Your task to perform on an android device: Is it going to rain tomorrow? Image 0: 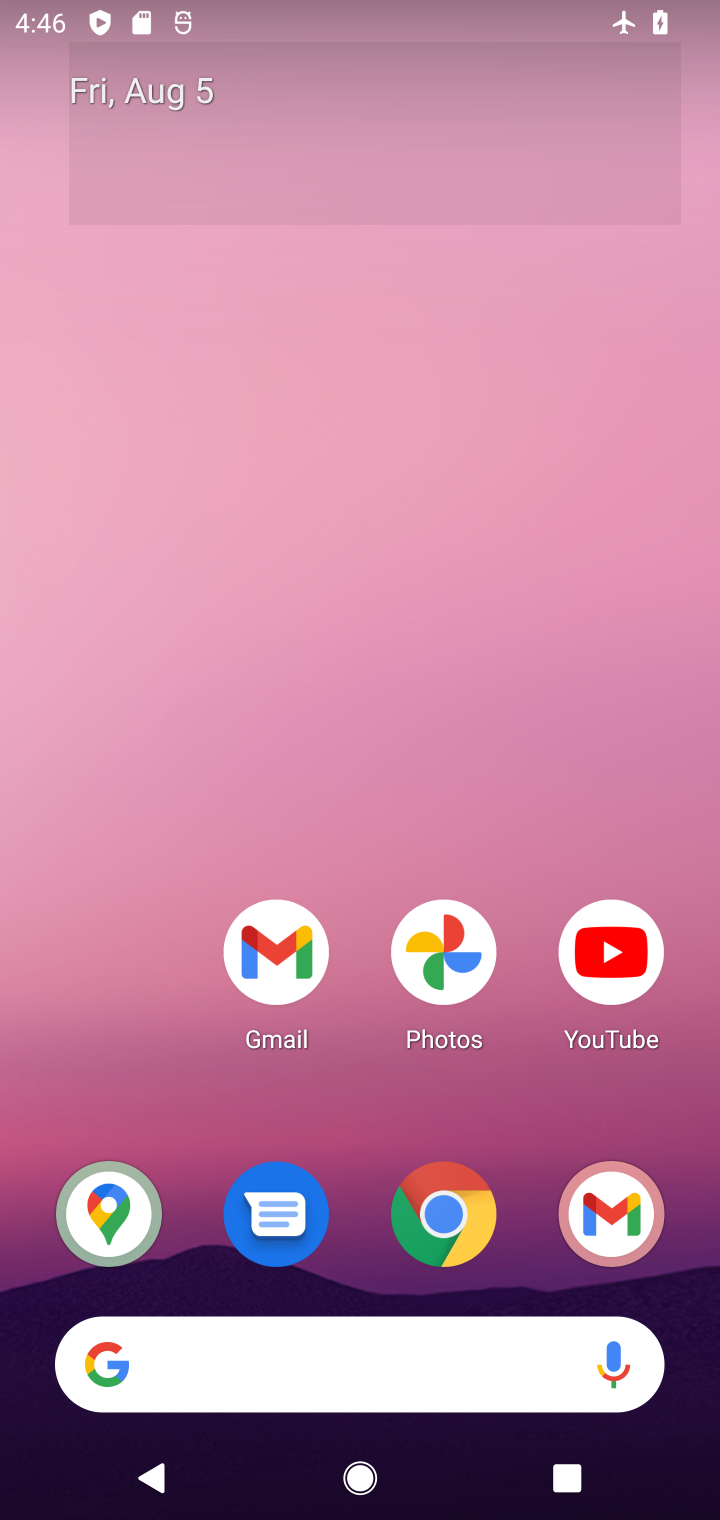
Step 0: click (209, 1345)
Your task to perform on an android device: Is it going to rain tomorrow? Image 1: 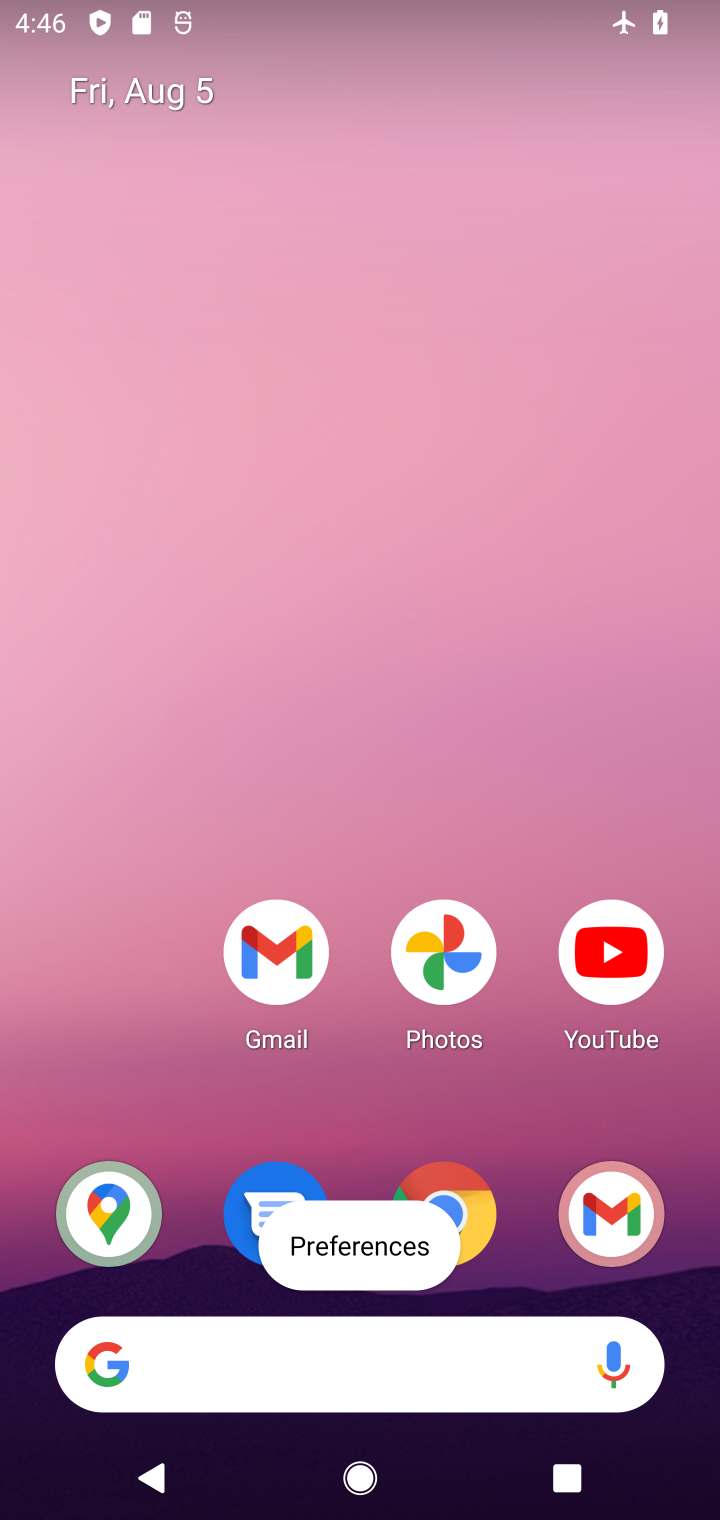
Step 1: click (219, 1361)
Your task to perform on an android device: Is it going to rain tomorrow? Image 2: 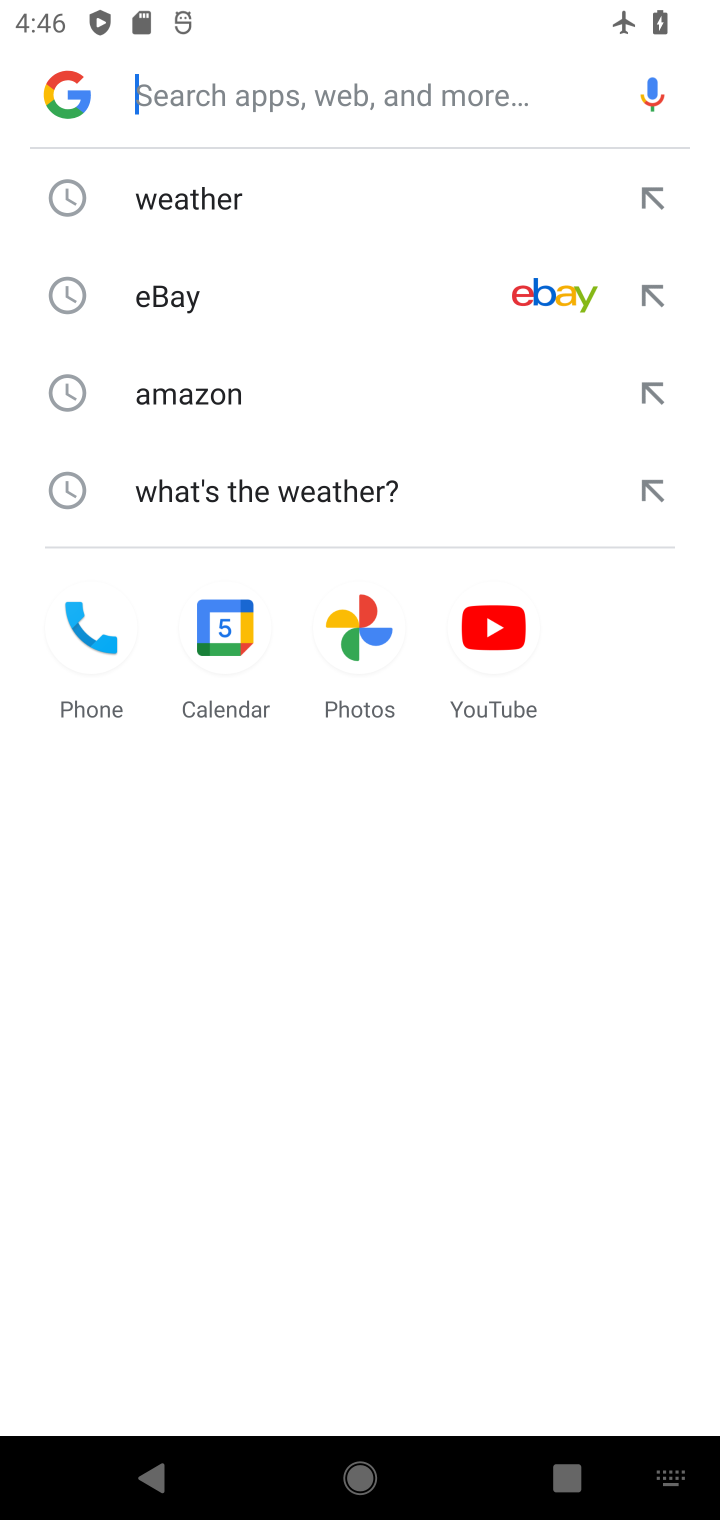
Step 2: click (206, 191)
Your task to perform on an android device: Is it going to rain tomorrow? Image 3: 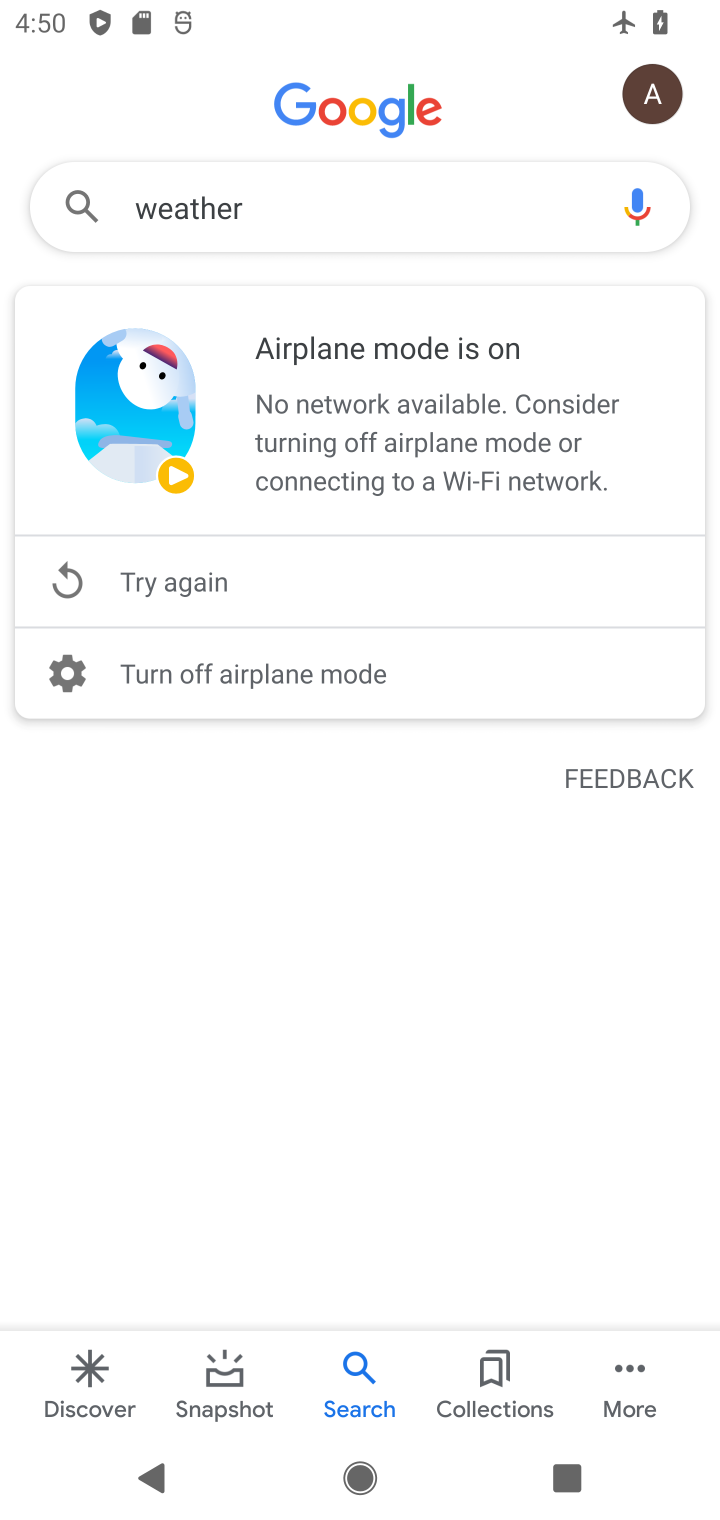
Step 3: task complete